Your task to perform on an android device: Open notification settings Image 0: 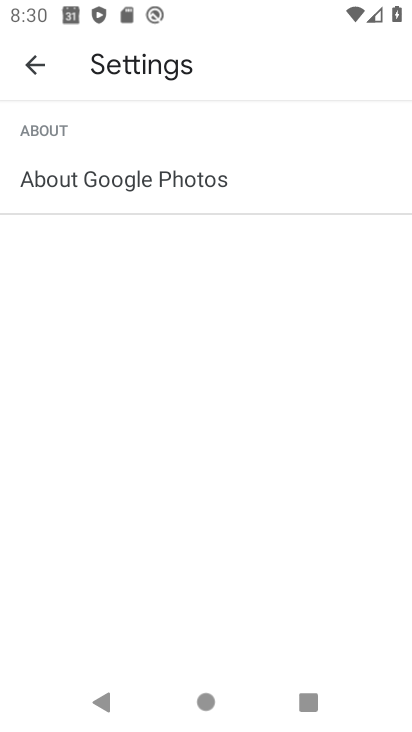
Step 0: press home button
Your task to perform on an android device: Open notification settings Image 1: 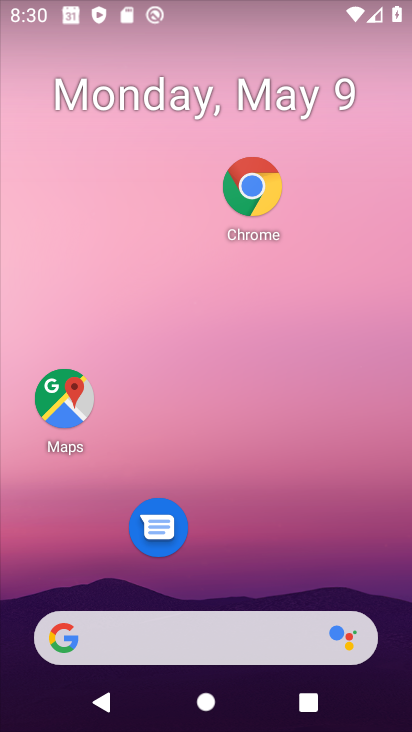
Step 1: drag from (224, 592) to (191, 53)
Your task to perform on an android device: Open notification settings Image 2: 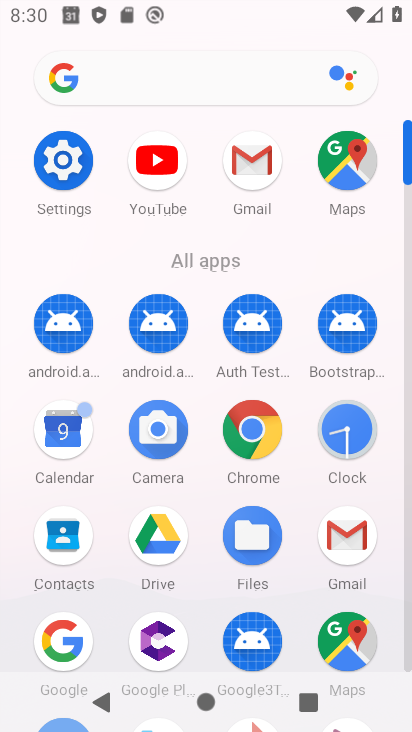
Step 2: click (60, 154)
Your task to perform on an android device: Open notification settings Image 3: 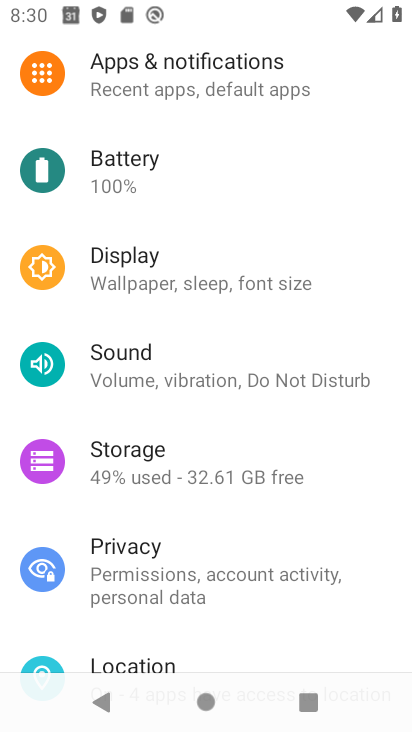
Step 3: click (198, 74)
Your task to perform on an android device: Open notification settings Image 4: 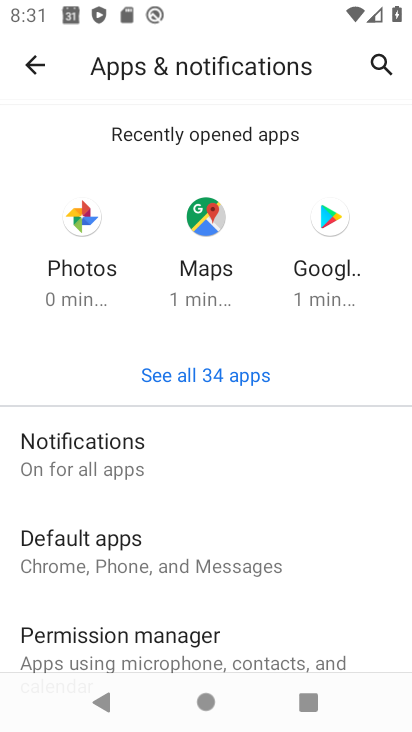
Step 4: click (151, 458)
Your task to perform on an android device: Open notification settings Image 5: 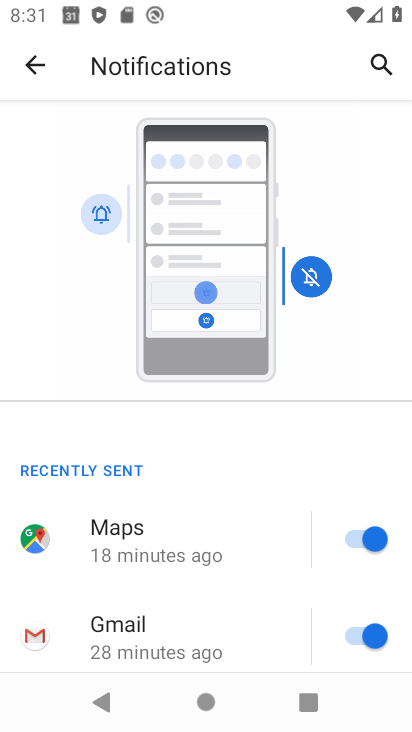
Step 5: drag from (256, 629) to (256, 248)
Your task to perform on an android device: Open notification settings Image 6: 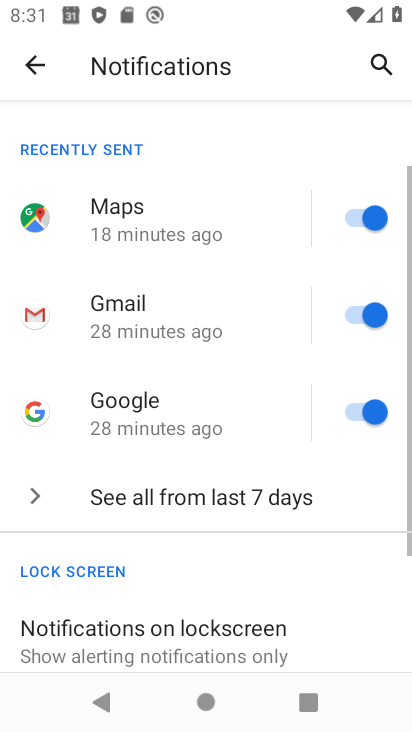
Step 6: click (253, 163)
Your task to perform on an android device: Open notification settings Image 7: 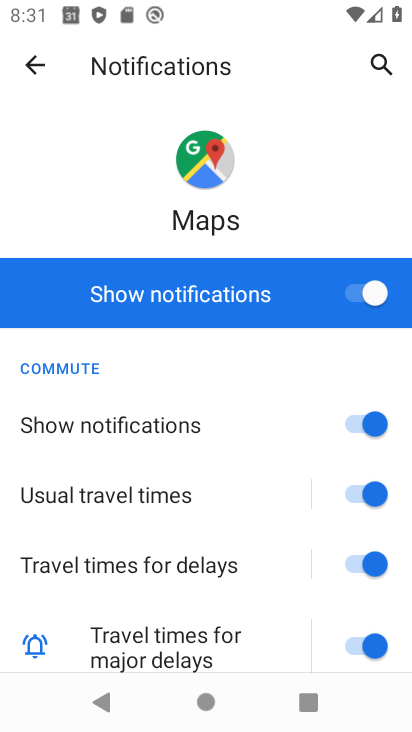
Step 7: click (33, 62)
Your task to perform on an android device: Open notification settings Image 8: 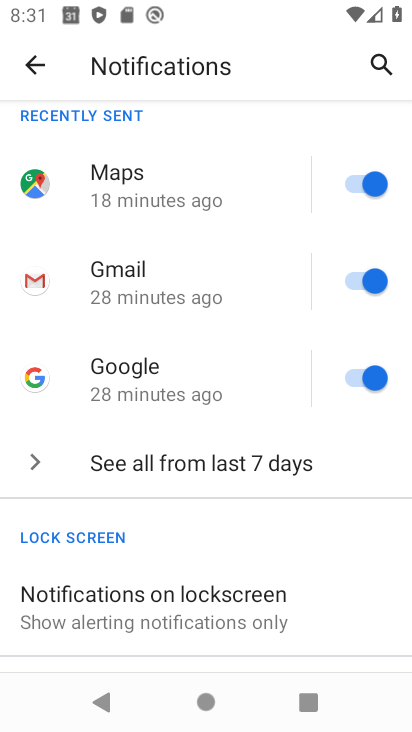
Step 8: click (345, 176)
Your task to perform on an android device: Open notification settings Image 9: 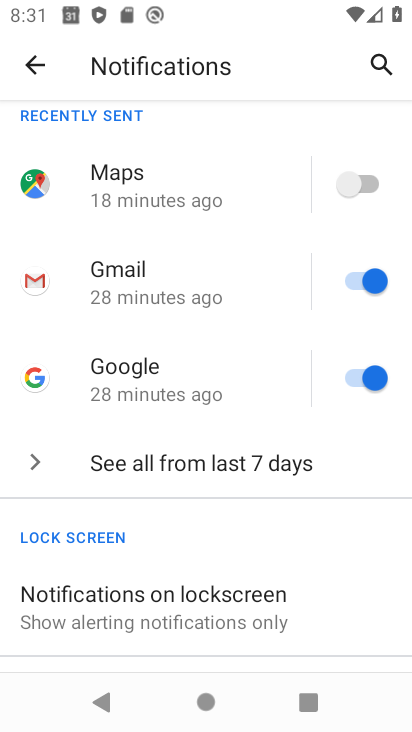
Step 9: click (358, 274)
Your task to perform on an android device: Open notification settings Image 10: 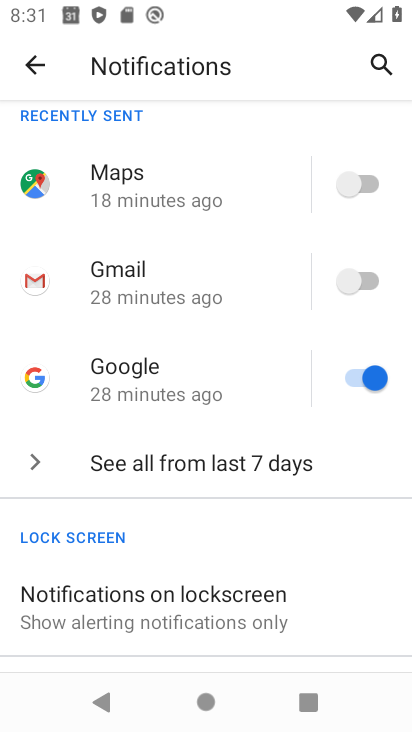
Step 10: click (363, 372)
Your task to perform on an android device: Open notification settings Image 11: 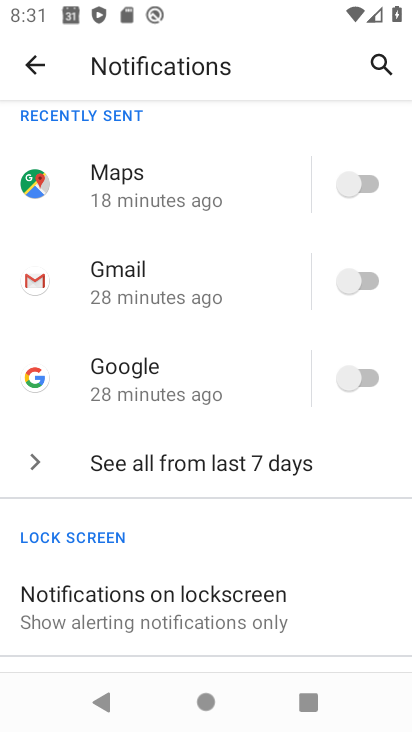
Step 11: drag from (242, 567) to (229, 199)
Your task to perform on an android device: Open notification settings Image 12: 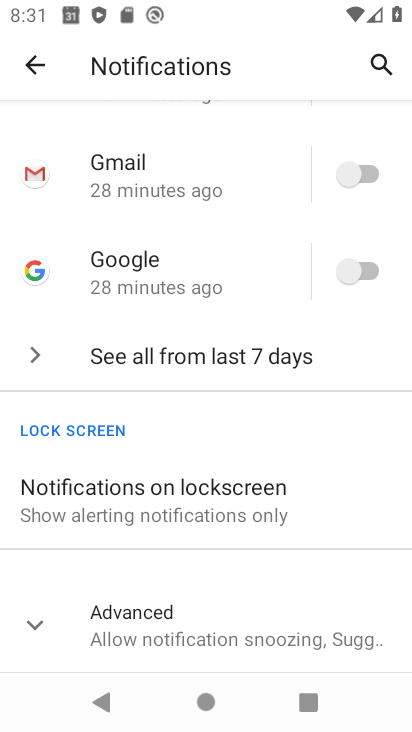
Step 12: click (299, 497)
Your task to perform on an android device: Open notification settings Image 13: 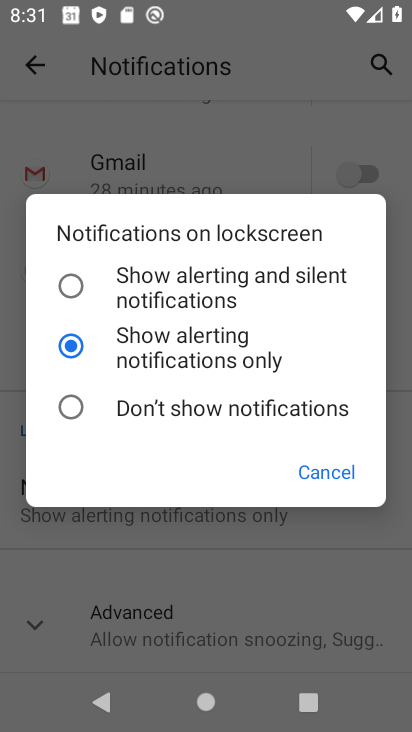
Step 13: click (69, 287)
Your task to perform on an android device: Open notification settings Image 14: 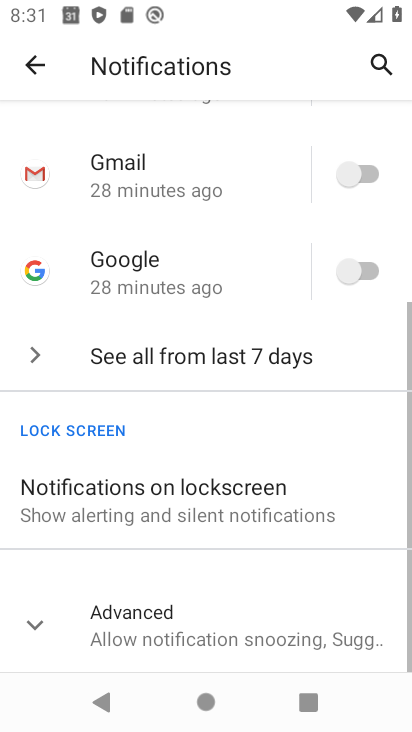
Step 14: task complete